Your task to perform on an android device: star an email in the gmail app Image 0: 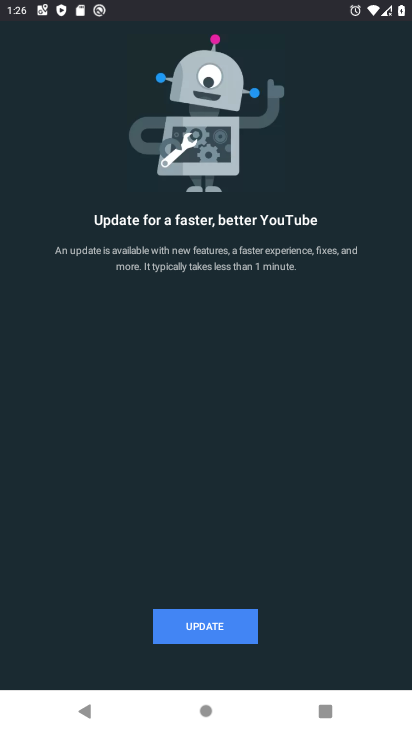
Step 0: press home button
Your task to perform on an android device: star an email in the gmail app Image 1: 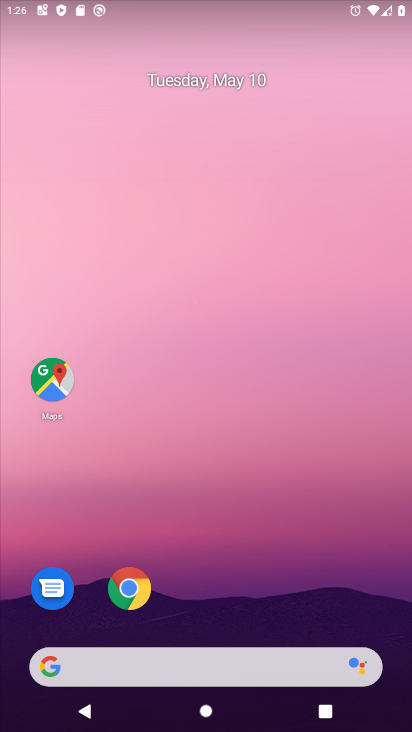
Step 1: drag from (282, 597) to (299, 105)
Your task to perform on an android device: star an email in the gmail app Image 2: 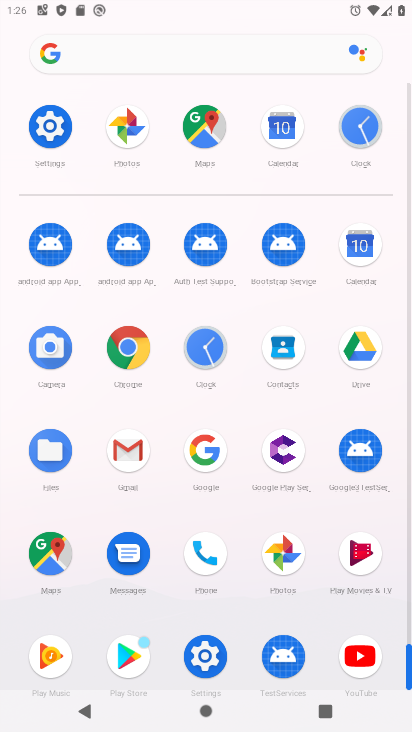
Step 2: click (115, 443)
Your task to perform on an android device: star an email in the gmail app Image 3: 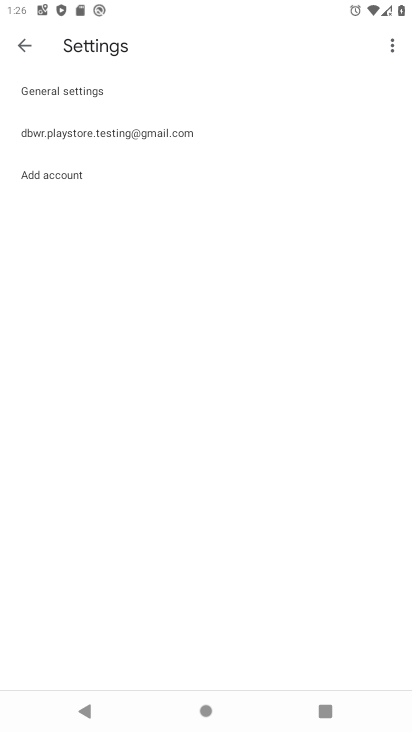
Step 3: drag from (108, 130) to (7, 47)
Your task to perform on an android device: star an email in the gmail app Image 4: 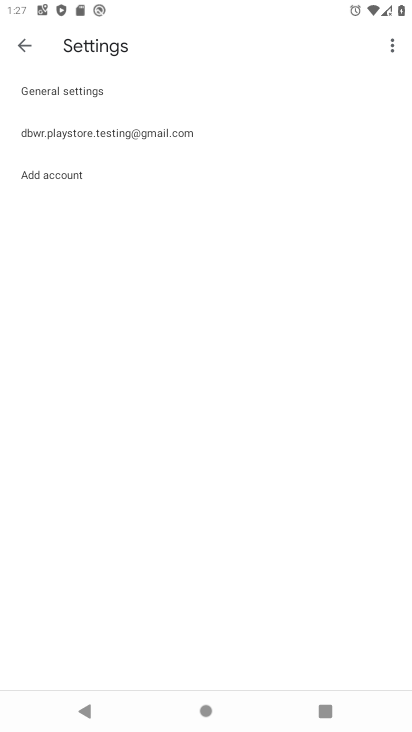
Step 4: click (31, 41)
Your task to perform on an android device: star an email in the gmail app Image 5: 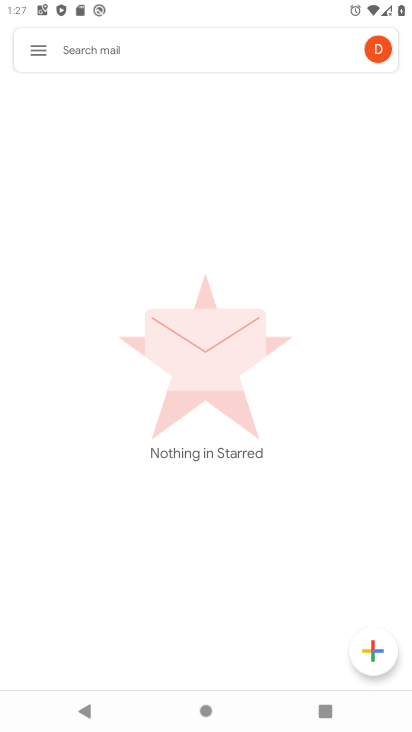
Step 5: click (32, 56)
Your task to perform on an android device: star an email in the gmail app Image 6: 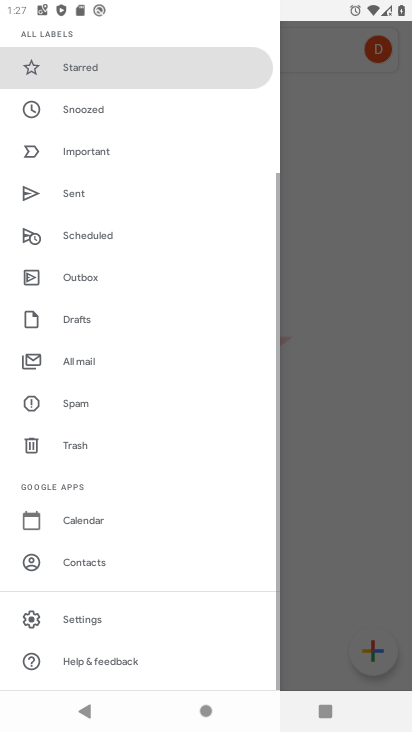
Step 6: click (336, 233)
Your task to perform on an android device: star an email in the gmail app Image 7: 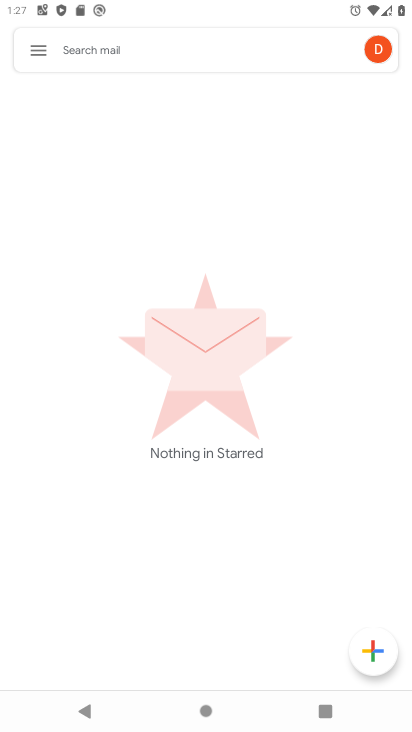
Step 7: task complete